Your task to perform on an android device: turn on translation in the chrome app Image 0: 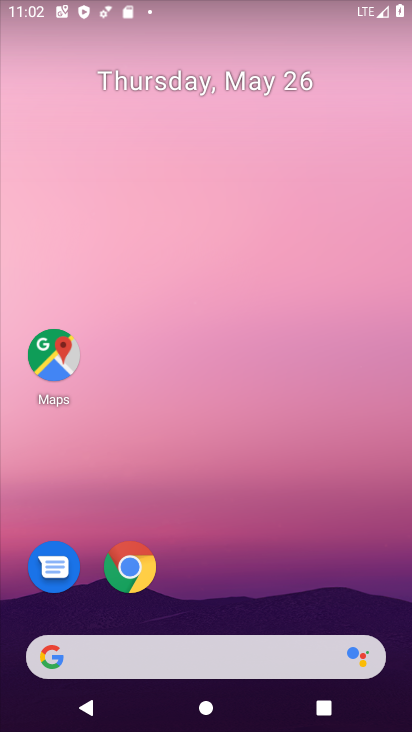
Step 0: click (147, 571)
Your task to perform on an android device: turn on translation in the chrome app Image 1: 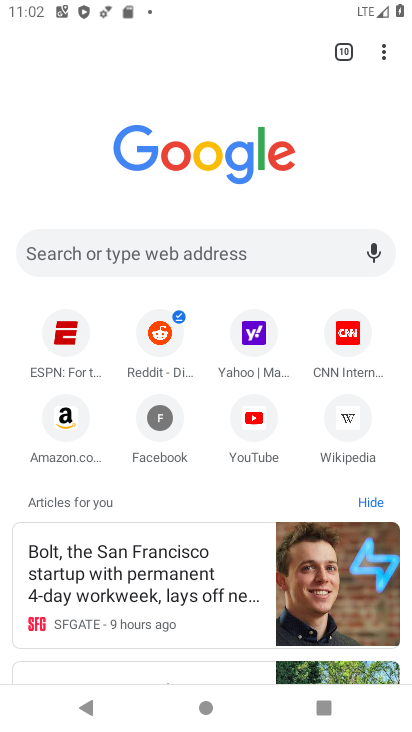
Step 1: click (384, 46)
Your task to perform on an android device: turn on translation in the chrome app Image 2: 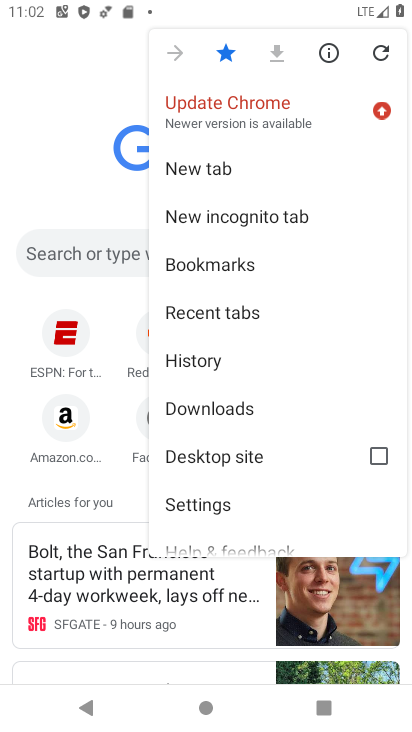
Step 2: click (230, 507)
Your task to perform on an android device: turn on translation in the chrome app Image 3: 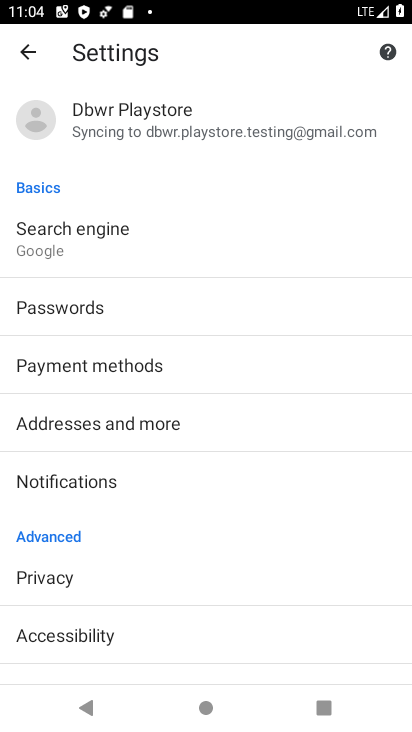
Step 3: drag from (171, 613) to (165, 99)
Your task to perform on an android device: turn on translation in the chrome app Image 4: 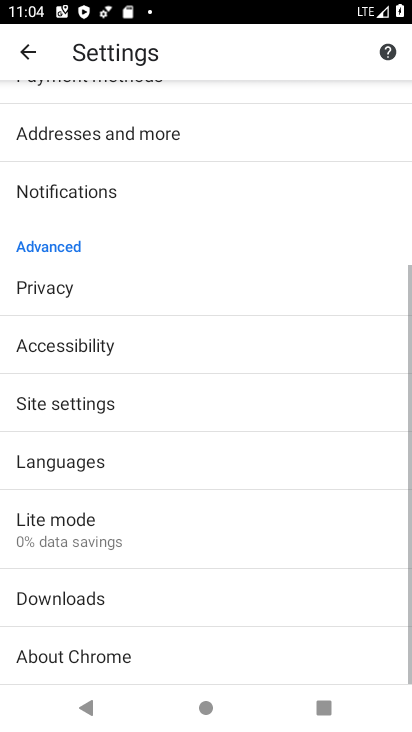
Step 4: click (121, 528)
Your task to perform on an android device: turn on translation in the chrome app Image 5: 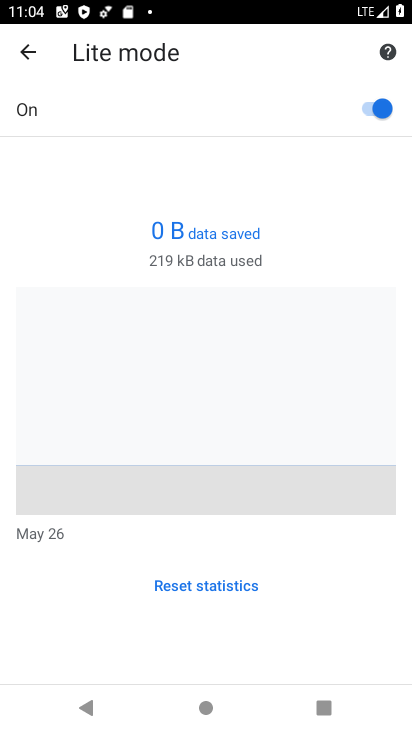
Step 5: click (25, 53)
Your task to perform on an android device: turn on translation in the chrome app Image 6: 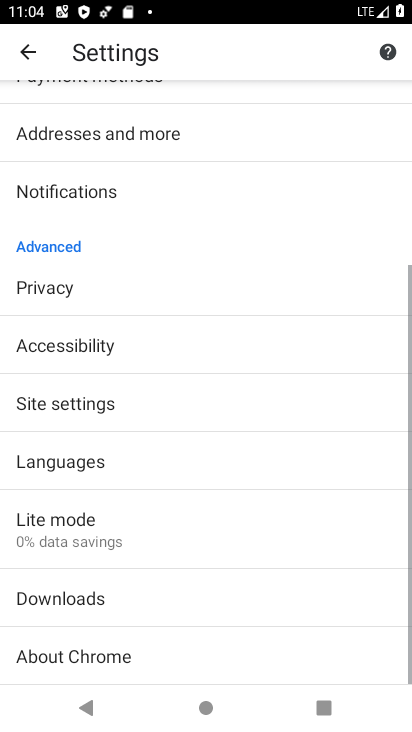
Step 6: click (108, 455)
Your task to perform on an android device: turn on translation in the chrome app Image 7: 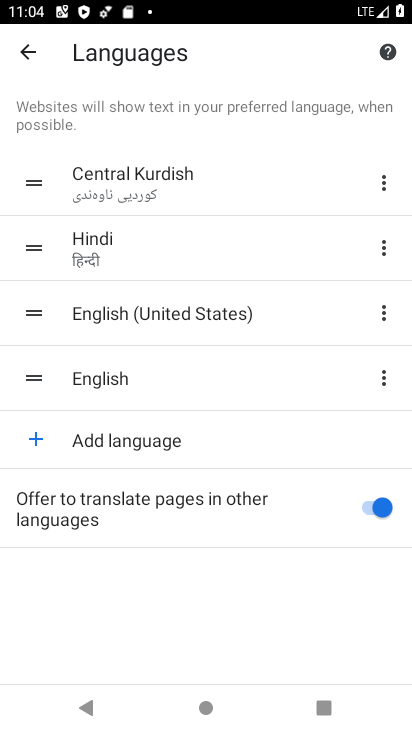
Step 7: task complete